Your task to perform on an android device: Do I have any events today? Image 0: 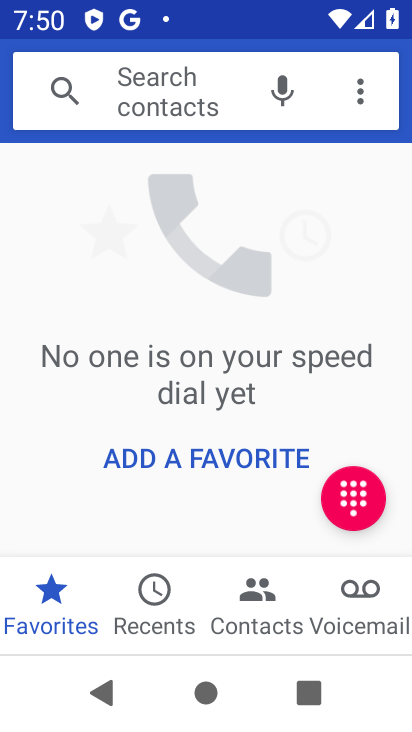
Step 0: press home button
Your task to perform on an android device: Do I have any events today? Image 1: 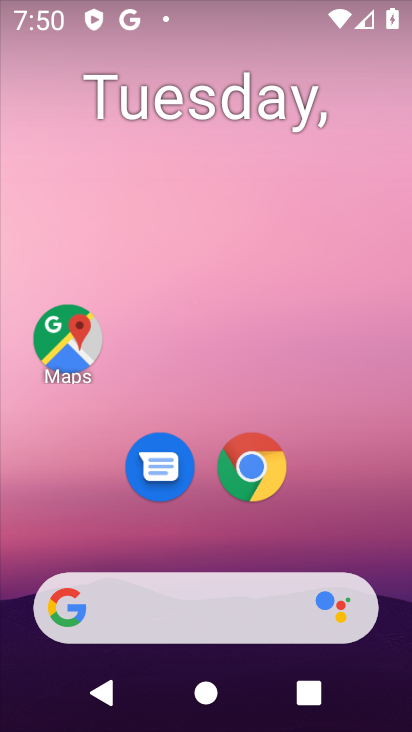
Step 1: drag from (266, 594) to (259, 9)
Your task to perform on an android device: Do I have any events today? Image 2: 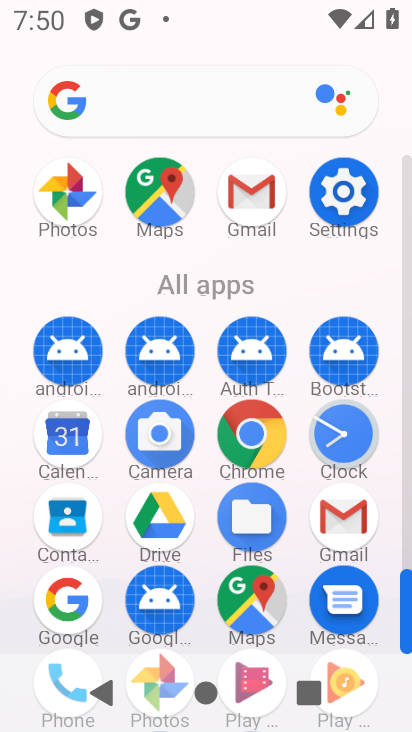
Step 2: drag from (216, 568) to (271, 281)
Your task to perform on an android device: Do I have any events today? Image 3: 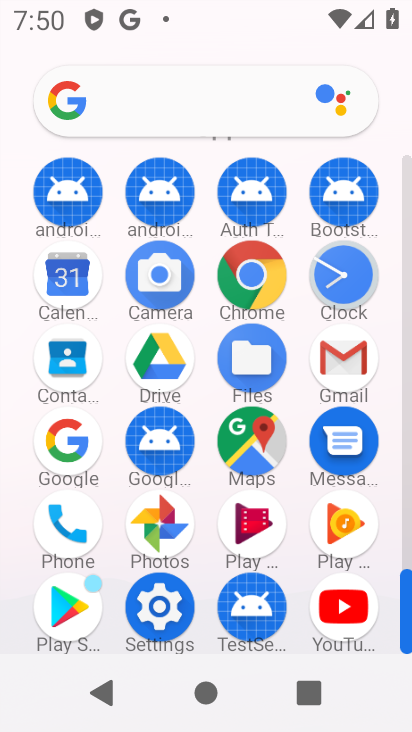
Step 3: click (68, 292)
Your task to perform on an android device: Do I have any events today? Image 4: 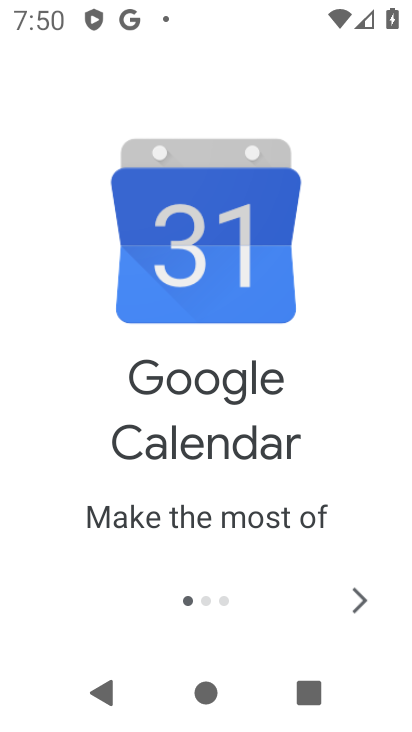
Step 4: click (347, 598)
Your task to perform on an android device: Do I have any events today? Image 5: 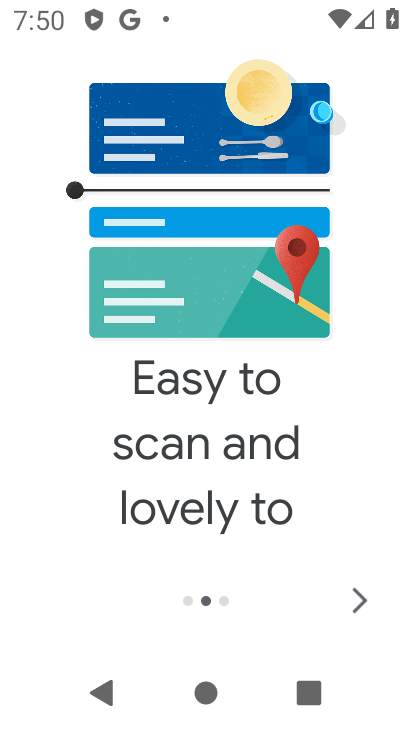
Step 5: click (354, 598)
Your task to perform on an android device: Do I have any events today? Image 6: 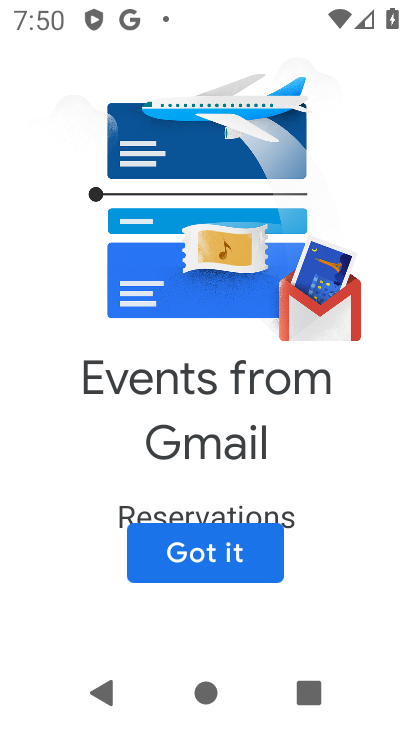
Step 6: click (259, 574)
Your task to perform on an android device: Do I have any events today? Image 7: 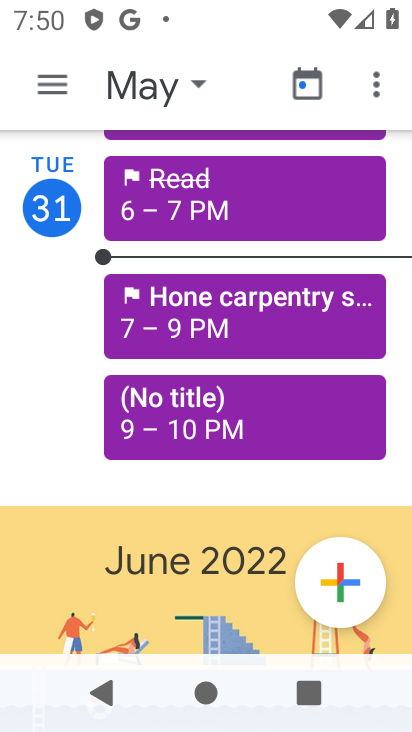
Step 7: task complete